Your task to perform on an android device: When is my next meeting? Image 0: 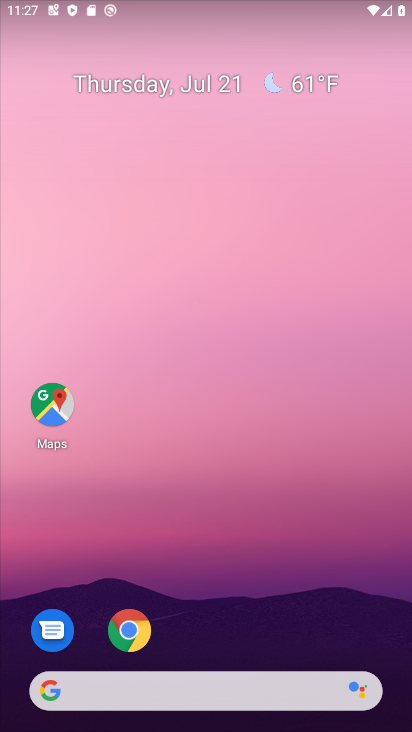
Step 0: drag from (187, 674) to (244, 201)
Your task to perform on an android device: When is my next meeting? Image 1: 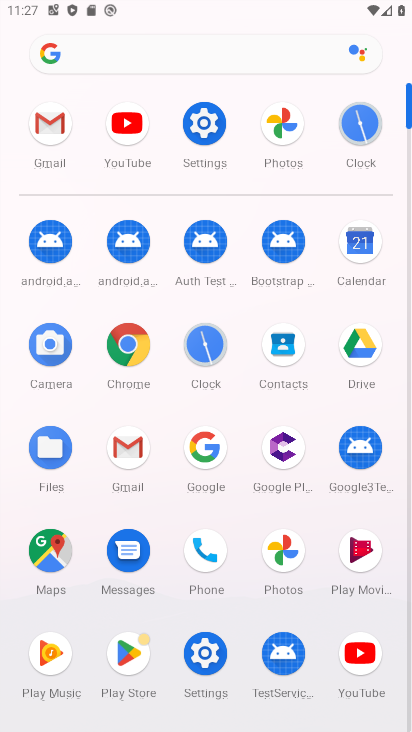
Step 1: click (352, 245)
Your task to perform on an android device: When is my next meeting? Image 2: 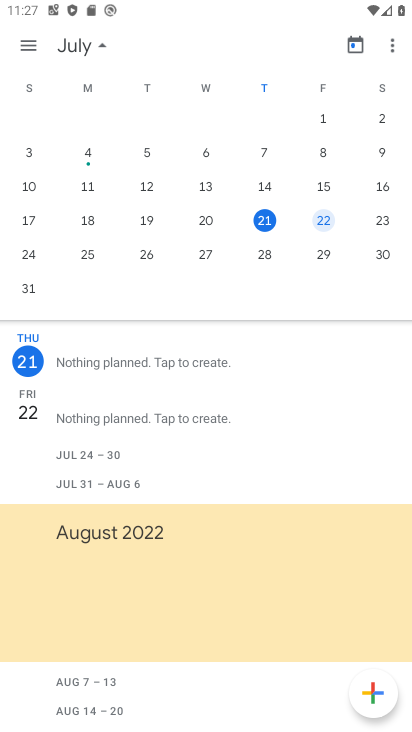
Step 2: click (18, 40)
Your task to perform on an android device: When is my next meeting? Image 3: 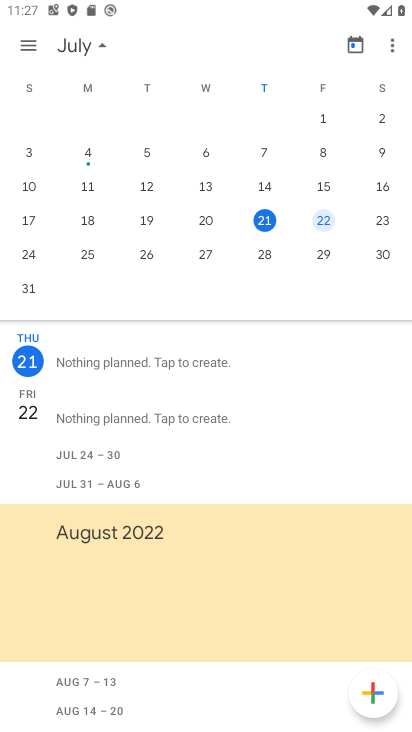
Step 3: click (26, 42)
Your task to perform on an android device: When is my next meeting? Image 4: 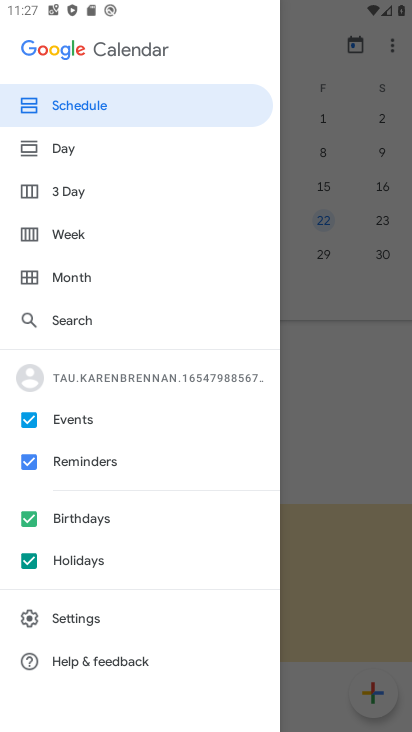
Step 4: click (69, 107)
Your task to perform on an android device: When is my next meeting? Image 5: 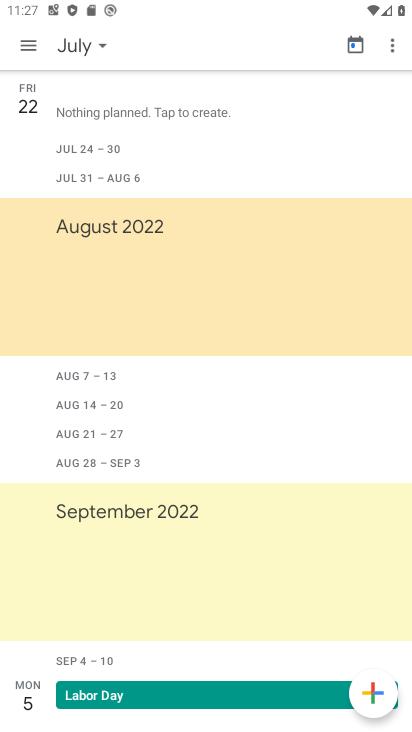
Step 5: task complete